Your task to perform on an android device: Show me the alarms in the clock app Image 0: 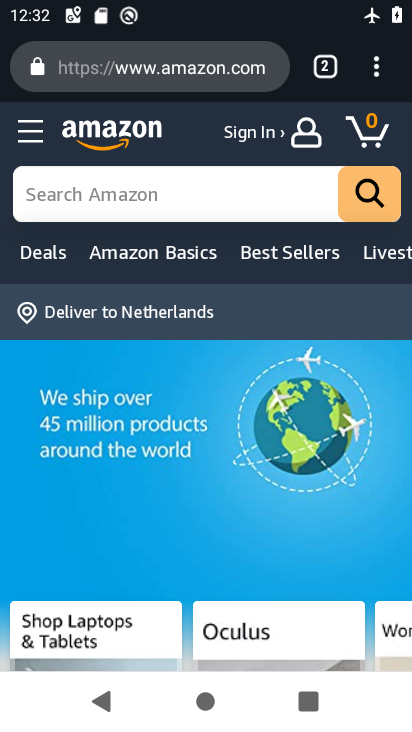
Step 0: press home button
Your task to perform on an android device: Show me the alarms in the clock app Image 1: 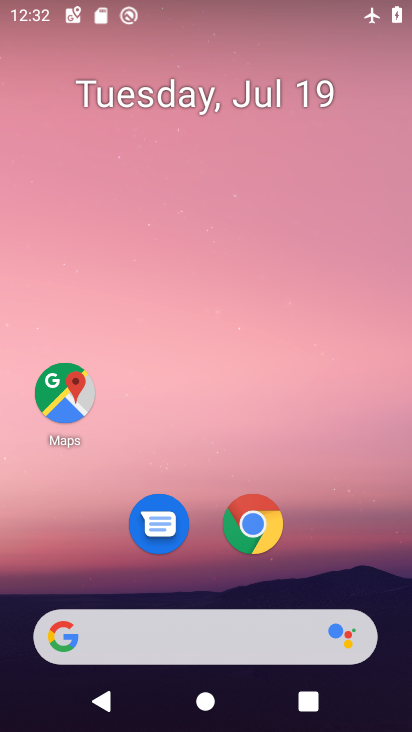
Step 1: drag from (324, 339) to (332, 15)
Your task to perform on an android device: Show me the alarms in the clock app Image 2: 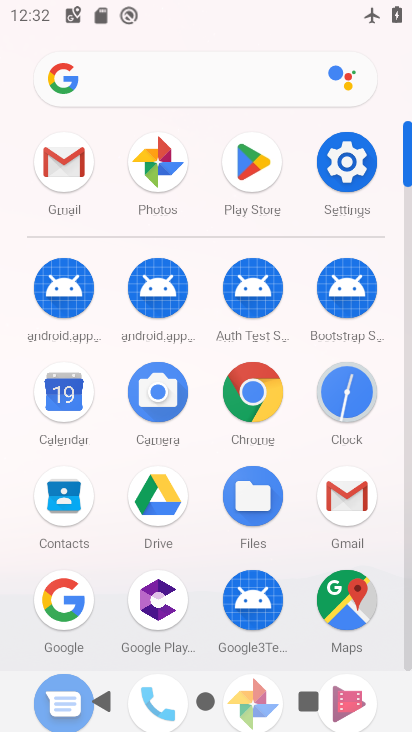
Step 2: click (368, 390)
Your task to perform on an android device: Show me the alarms in the clock app Image 3: 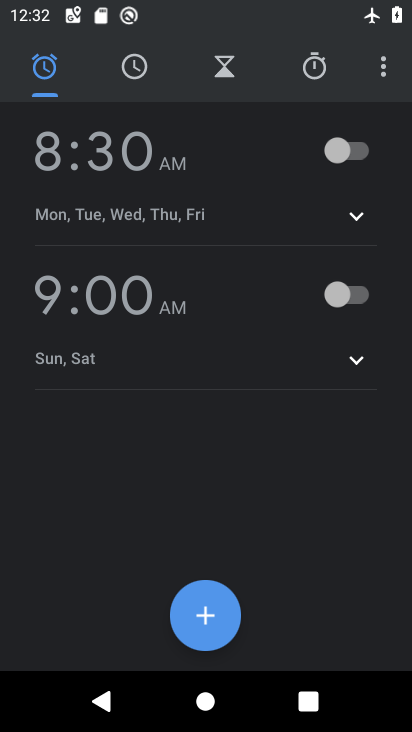
Step 3: task complete